Your task to perform on an android device: Show me productivity apps on the Play Store Image 0: 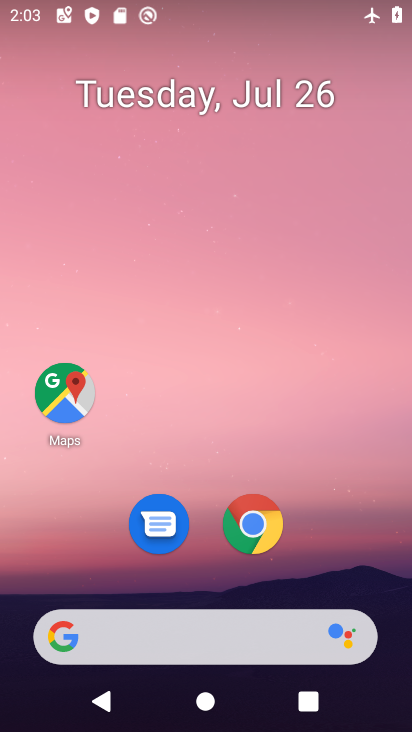
Step 0: drag from (325, 544) to (357, 30)
Your task to perform on an android device: Show me productivity apps on the Play Store Image 1: 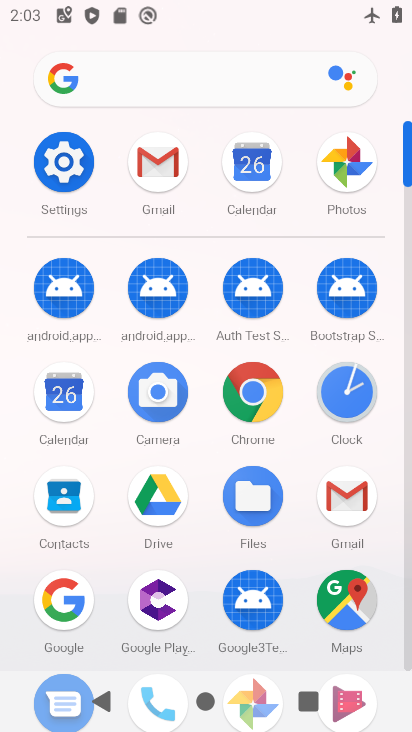
Step 1: drag from (173, 473) to (216, 194)
Your task to perform on an android device: Show me productivity apps on the Play Store Image 2: 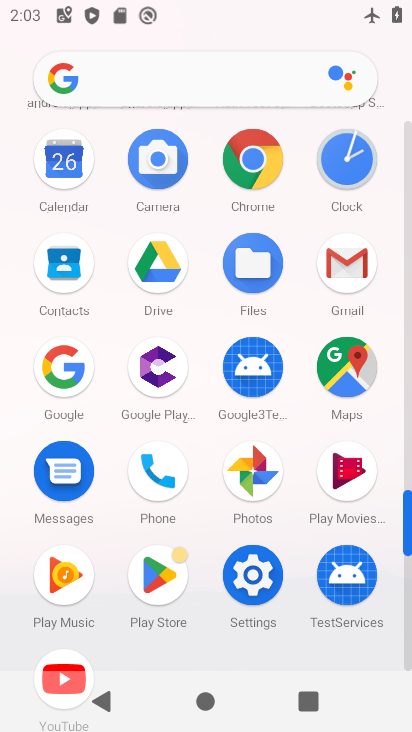
Step 2: click (169, 582)
Your task to perform on an android device: Show me productivity apps on the Play Store Image 3: 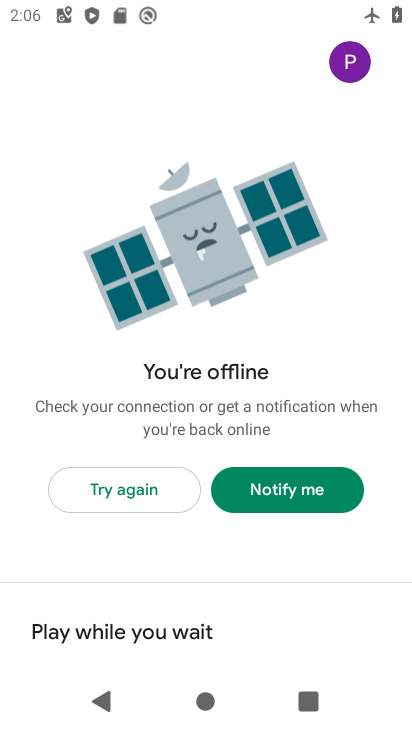
Step 3: task complete